Your task to perform on an android device: turn off improve location accuracy Image 0: 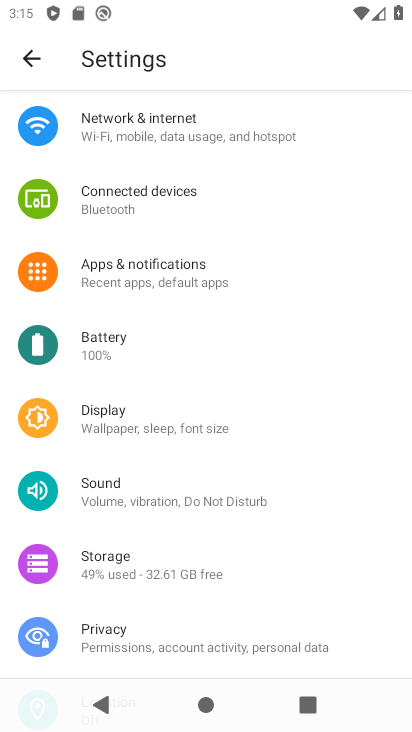
Step 0: drag from (191, 612) to (203, 36)
Your task to perform on an android device: turn off improve location accuracy Image 1: 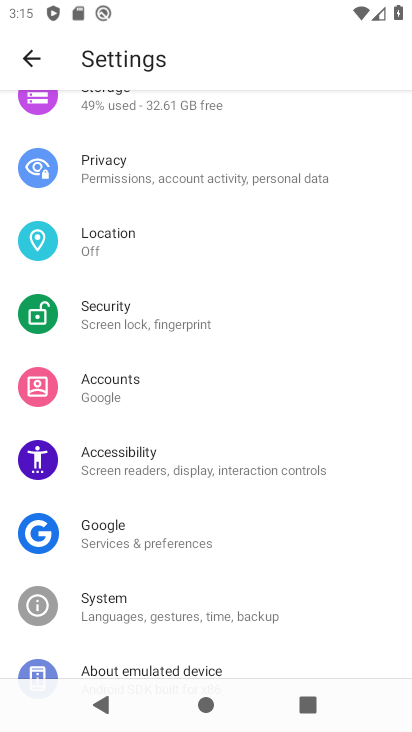
Step 1: click (107, 247)
Your task to perform on an android device: turn off improve location accuracy Image 2: 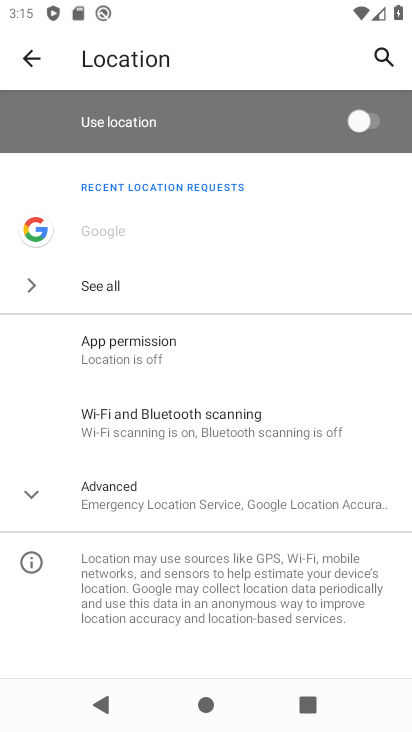
Step 2: drag from (193, 556) to (190, 280)
Your task to perform on an android device: turn off improve location accuracy Image 3: 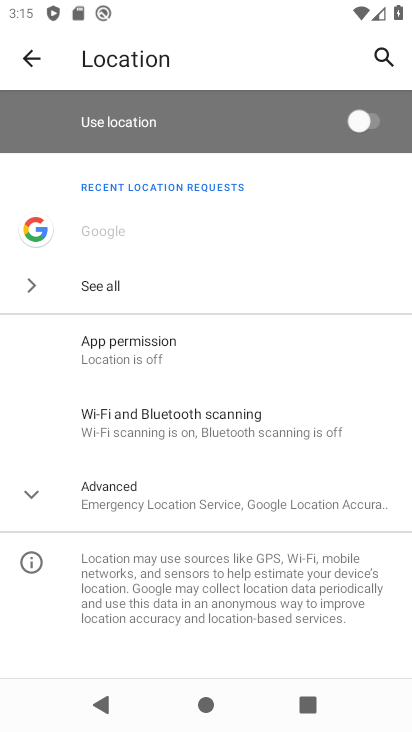
Step 3: click (156, 487)
Your task to perform on an android device: turn off improve location accuracy Image 4: 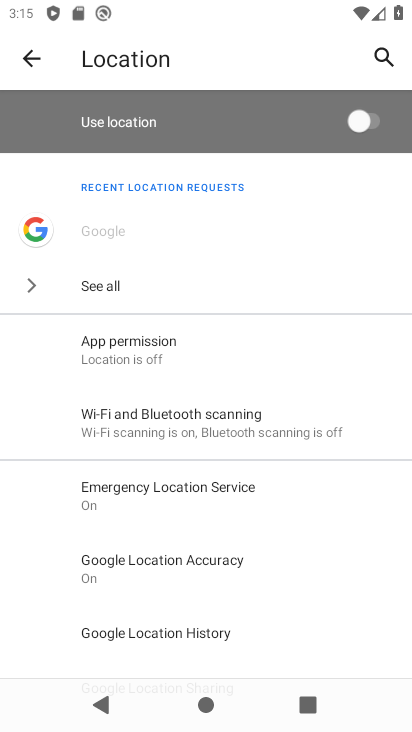
Step 4: click (180, 567)
Your task to perform on an android device: turn off improve location accuracy Image 5: 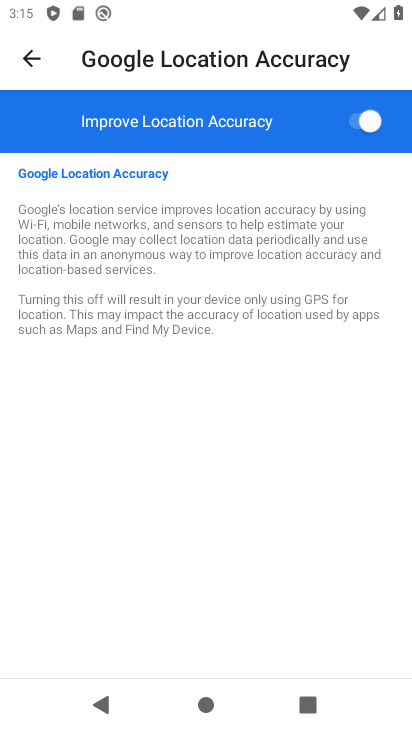
Step 5: click (358, 120)
Your task to perform on an android device: turn off improve location accuracy Image 6: 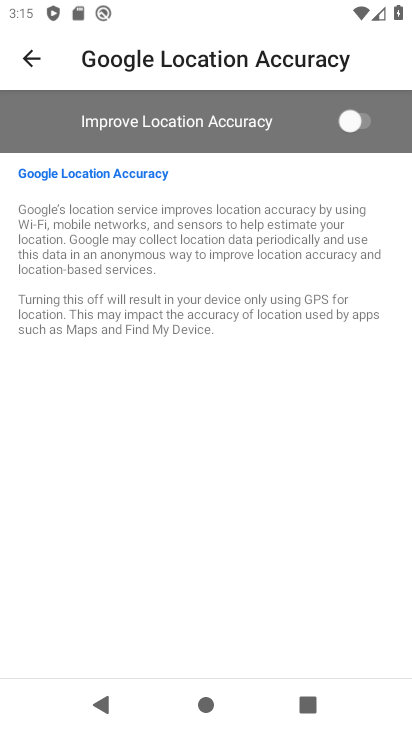
Step 6: task complete